Your task to perform on an android device: turn off airplane mode Image 0: 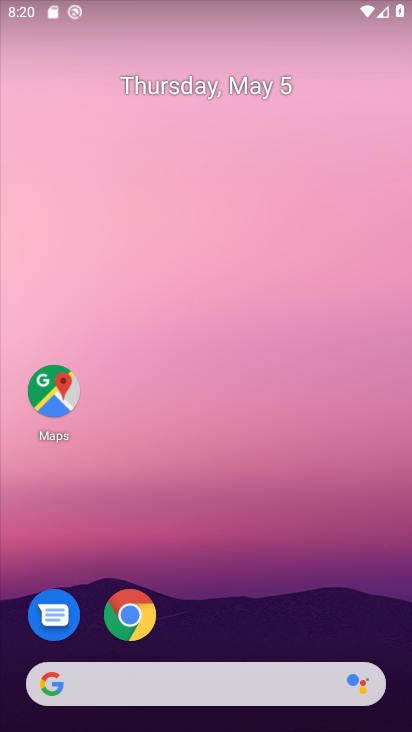
Step 0: drag from (200, 665) to (330, 148)
Your task to perform on an android device: turn off airplane mode Image 1: 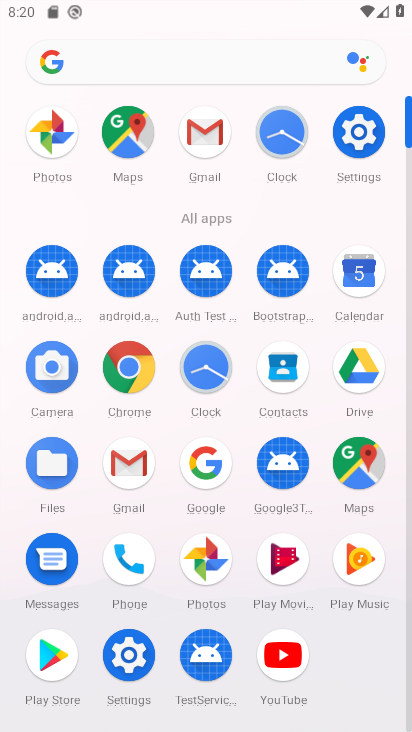
Step 1: click (354, 132)
Your task to perform on an android device: turn off airplane mode Image 2: 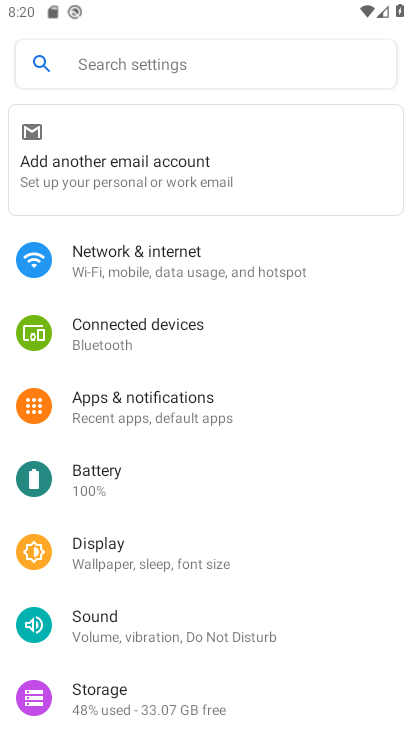
Step 2: click (165, 263)
Your task to perform on an android device: turn off airplane mode Image 3: 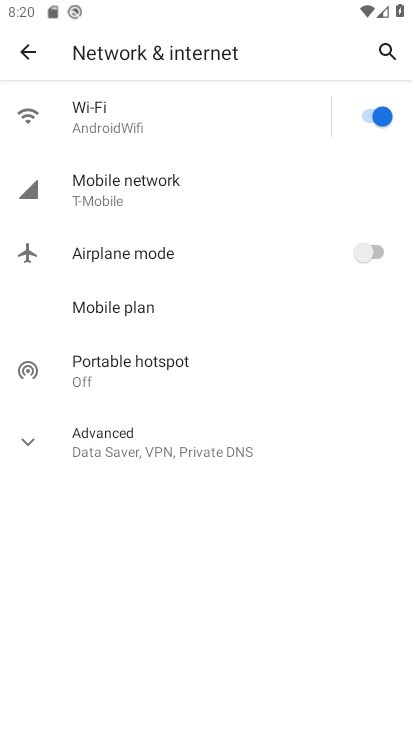
Step 3: task complete